Your task to perform on an android device: turn off smart reply in the gmail app Image 0: 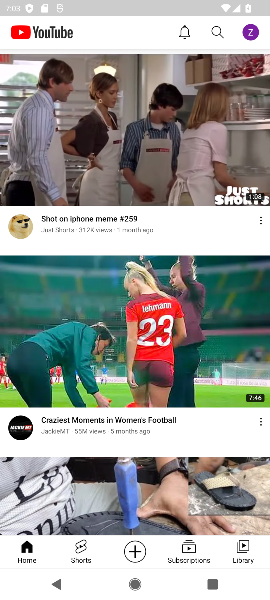
Step 0: press home button
Your task to perform on an android device: turn off smart reply in the gmail app Image 1: 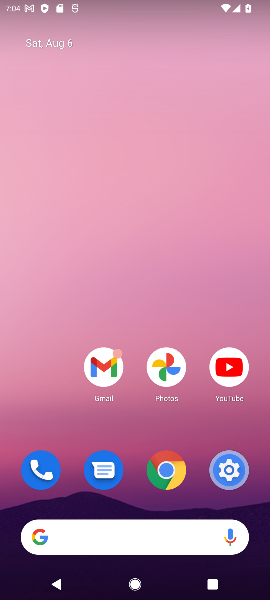
Step 1: drag from (194, 488) to (219, 68)
Your task to perform on an android device: turn off smart reply in the gmail app Image 2: 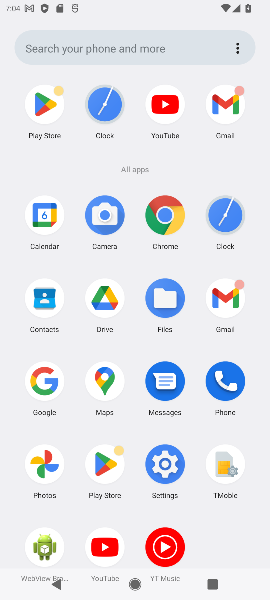
Step 2: click (226, 296)
Your task to perform on an android device: turn off smart reply in the gmail app Image 3: 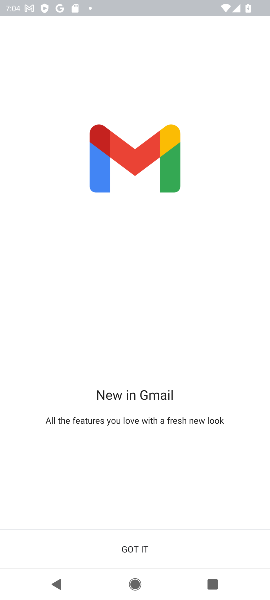
Step 3: click (127, 553)
Your task to perform on an android device: turn off smart reply in the gmail app Image 4: 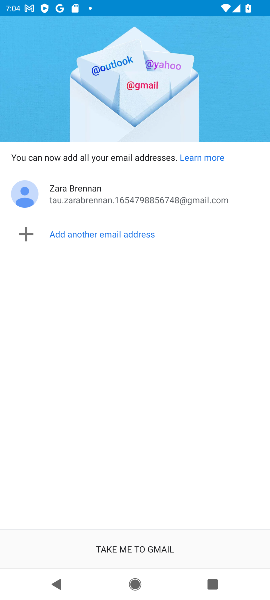
Step 4: click (109, 556)
Your task to perform on an android device: turn off smart reply in the gmail app Image 5: 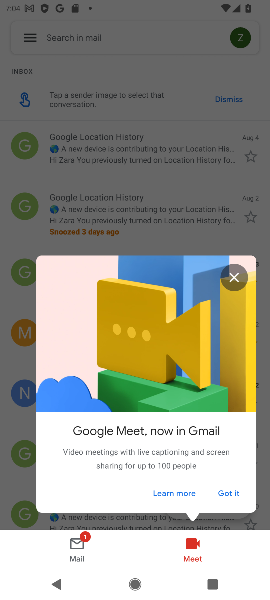
Step 5: click (235, 486)
Your task to perform on an android device: turn off smart reply in the gmail app Image 6: 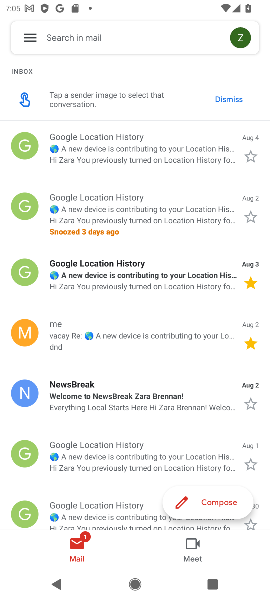
Step 6: click (28, 36)
Your task to perform on an android device: turn off smart reply in the gmail app Image 7: 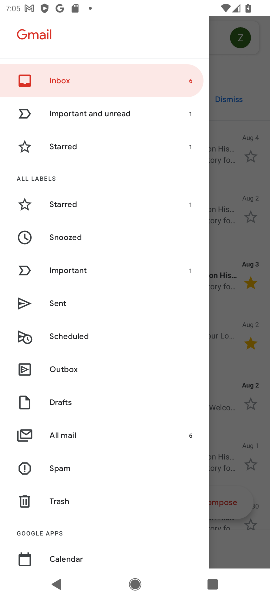
Step 7: drag from (115, 503) to (89, 330)
Your task to perform on an android device: turn off smart reply in the gmail app Image 8: 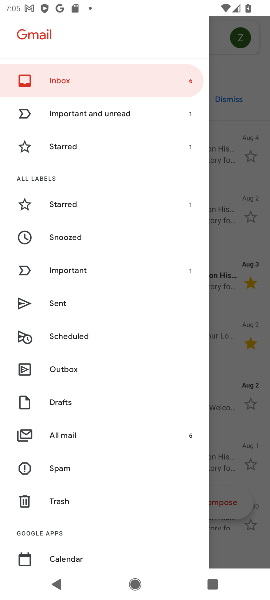
Step 8: drag from (110, 471) to (112, 282)
Your task to perform on an android device: turn off smart reply in the gmail app Image 9: 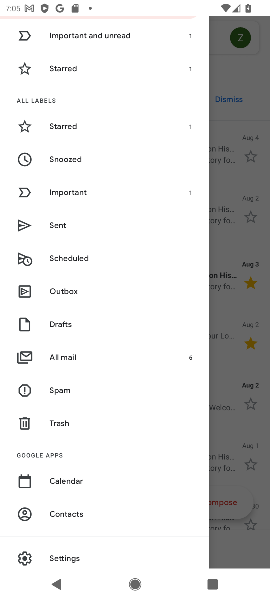
Step 9: click (63, 555)
Your task to perform on an android device: turn off smart reply in the gmail app Image 10: 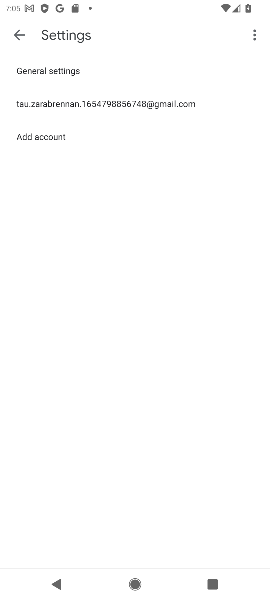
Step 10: click (68, 110)
Your task to perform on an android device: turn off smart reply in the gmail app Image 11: 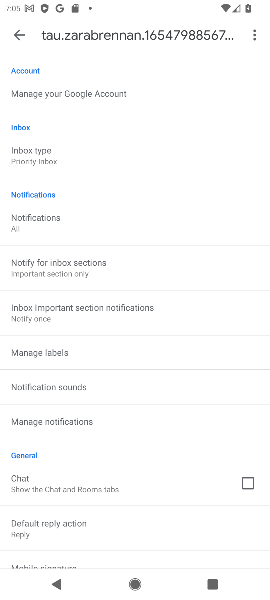
Step 11: drag from (99, 501) to (153, 185)
Your task to perform on an android device: turn off smart reply in the gmail app Image 12: 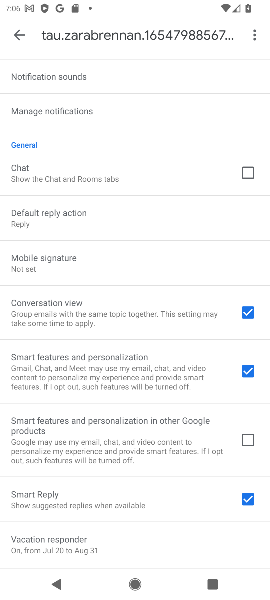
Step 12: click (246, 500)
Your task to perform on an android device: turn off smart reply in the gmail app Image 13: 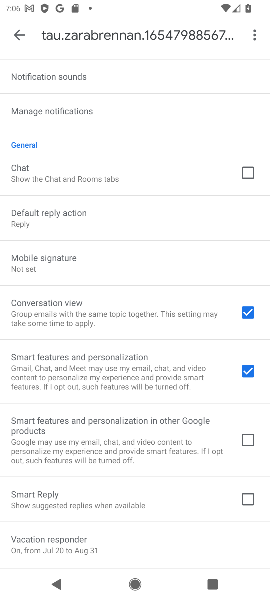
Step 13: task complete